Your task to perform on an android device: turn on notifications settings in the gmail app Image 0: 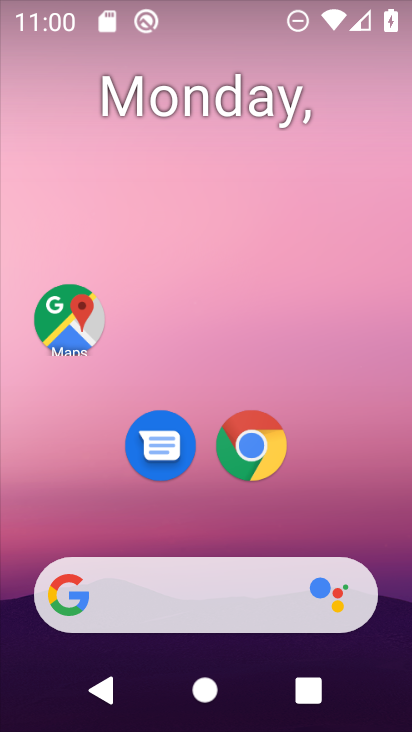
Step 0: drag from (223, 442) to (333, 21)
Your task to perform on an android device: turn on notifications settings in the gmail app Image 1: 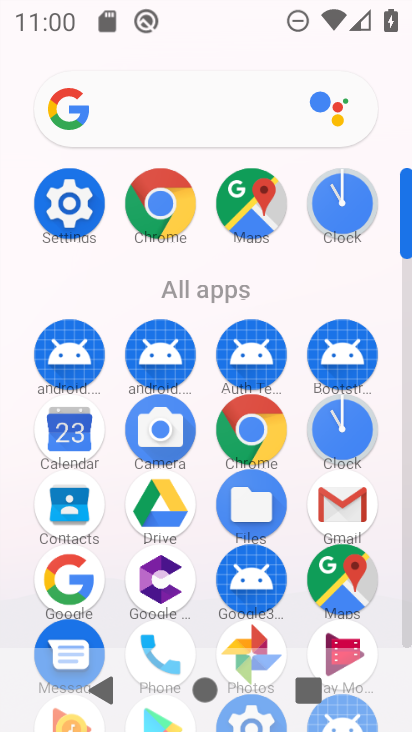
Step 1: click (342, 508)
Your task to perform on an android device: turn on notifications settings in the gmail app Image 2: 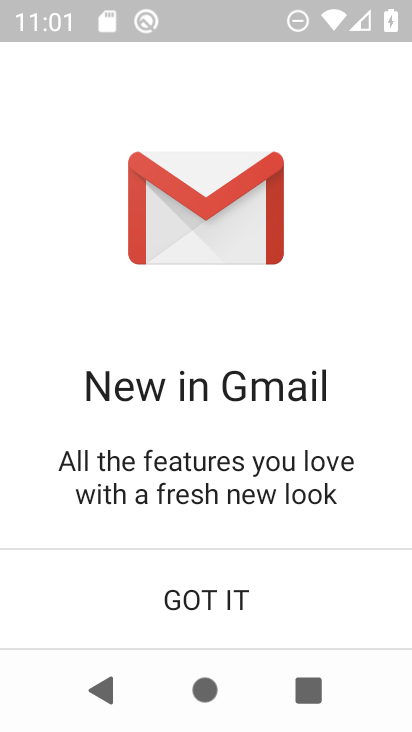
Step 2: click (208, 594)
Your task to perform on an android device: turn on notifications settings in the gmail app Image 3: 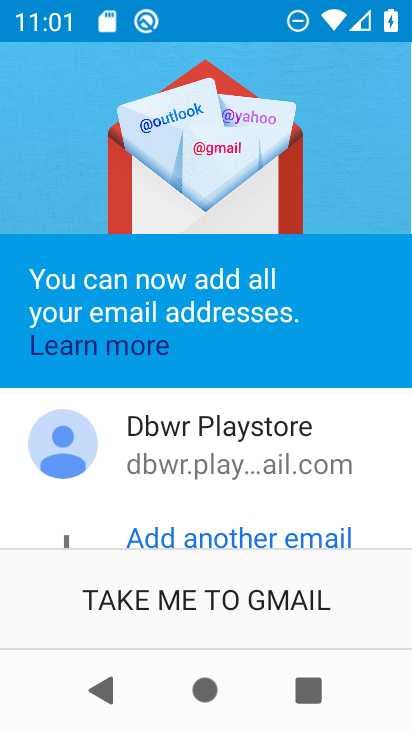
Step 3: click (218, 603)
Your task to perform on an android device: turn on notifications settings in the gmail app Image 4: 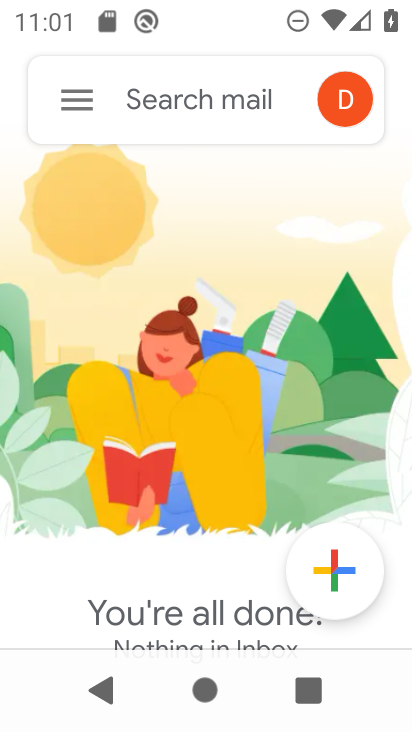
Step 4: click (89, 100)
Your task to perform on an android device: turn on notifications settings in the gmail app Image 5: 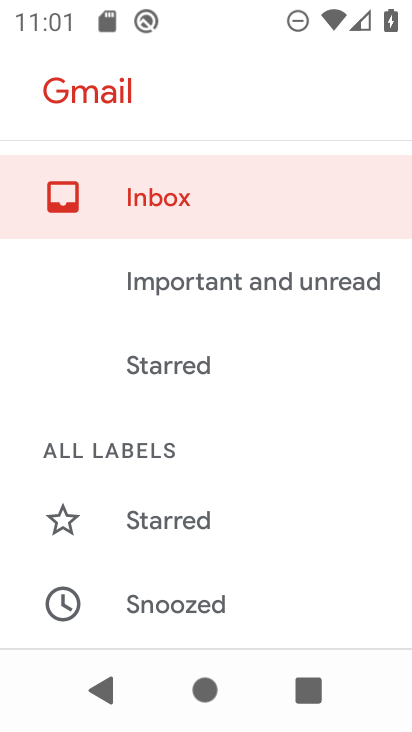
Step 5: drag from (168, 602) to (218, 280)
Your task to perform on an android device: turn on notifications settings in the gmail app Image 6: 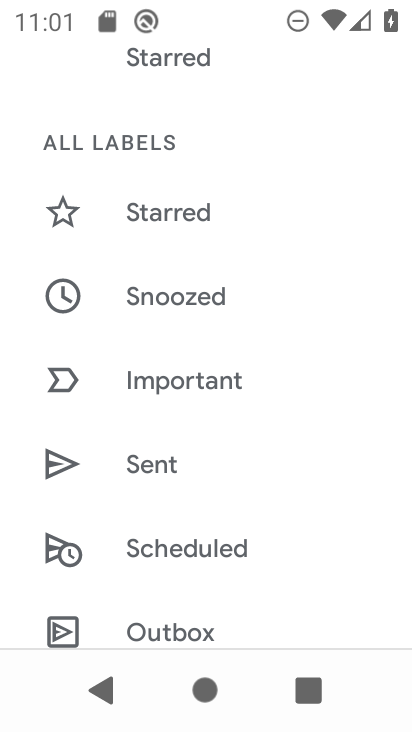
Step 6: drag from (167, 584) to (245, 216)
Your task to perform on an android device: turn on notifications settings in the gmail app Image 7: 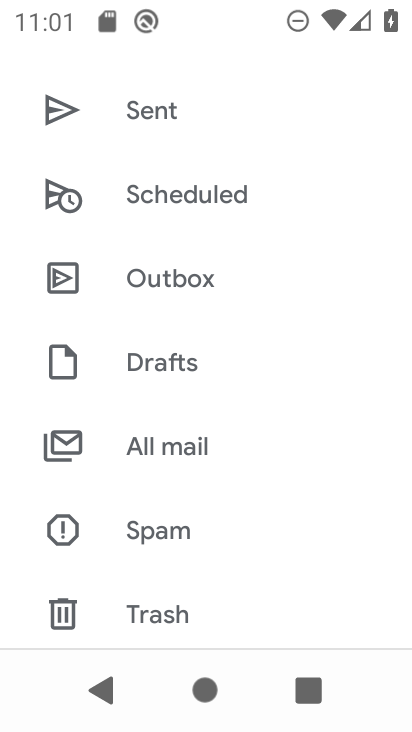
Step 7: drag from (188, 596) to (250, 252)
Your task to perform on an android device: turn on notifications settings in the gmail app Image 8: 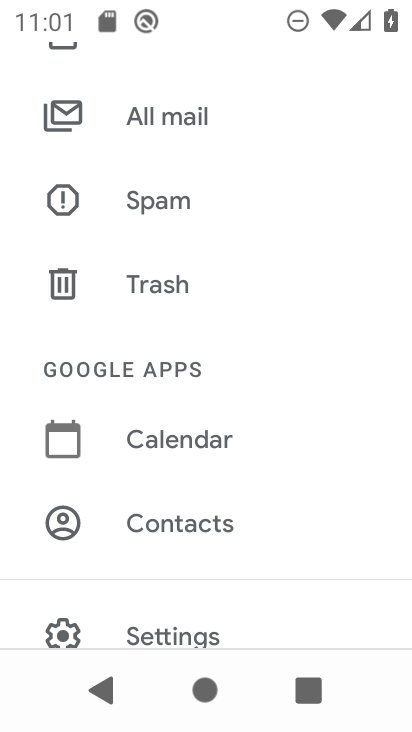
Step 8: click (142, 618)
Your task to perform on an android device: turn on notifications settings in the gmail app Image 9: 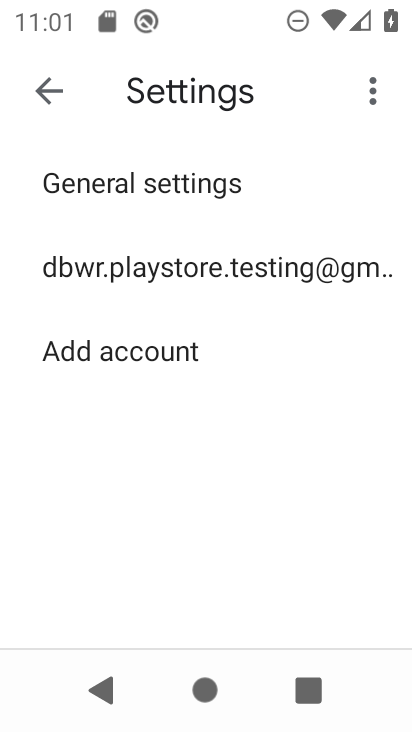
Step 9: click (200, 273)
Your task to perform on an android device: turn on notifications settings in the gmail app Image 10: 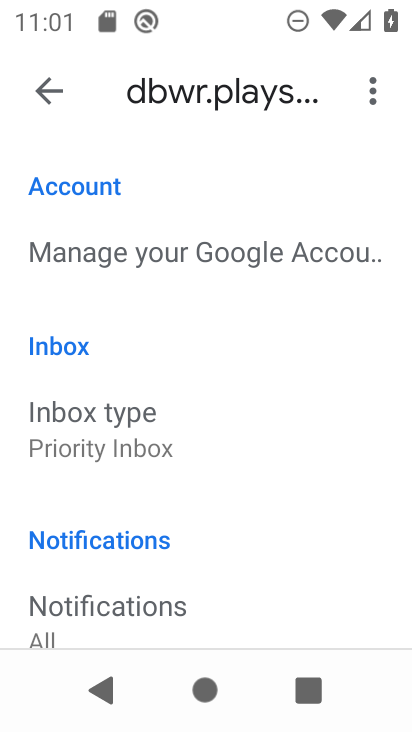
Step 10: drag from (164, 612) to (206, 349)
Your task to perform on an android device: turn on notifications settings in the gmail app Image 11: 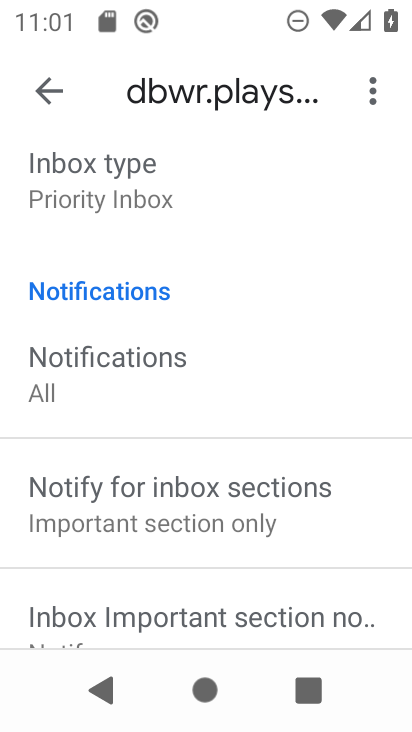
Step 11: drag from (142, 560) to (206, 320)
Your task to perform on an android device: turn on notifications settings in the gmail app Image 12: 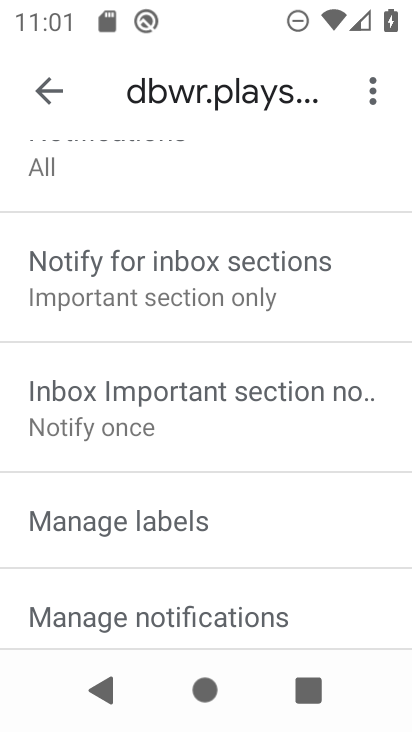
Step 12: click (216, 618)
Your task to perform on an android device: turn on notifications settings in the gmail app Image 13: 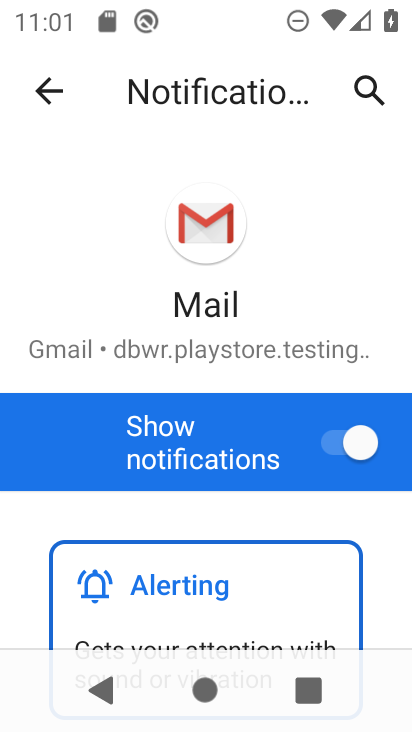
Step 13: task complete